Your task to perform on an android device: turn notification dots on Image 0: 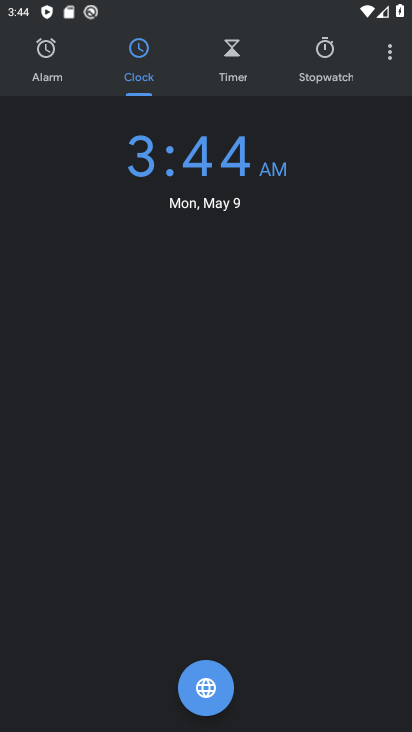
Step 0: press back button
Your task to perform on an android device: turn notification dots on Image 1: 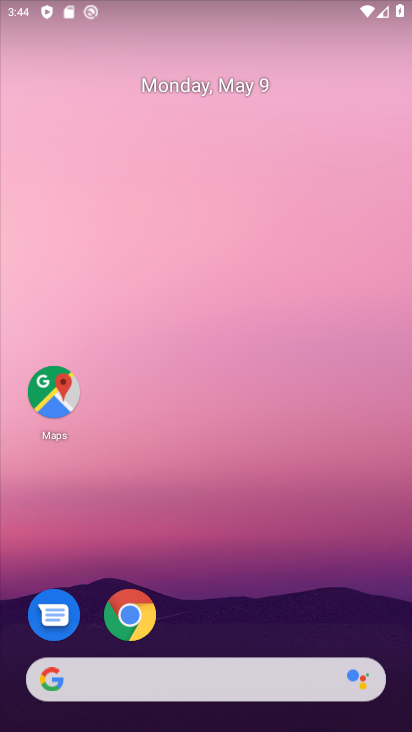
Step 1: drag from (218, 663) to (313, 206)
Your task to perform on an android device: turn notification dots on Image 2: 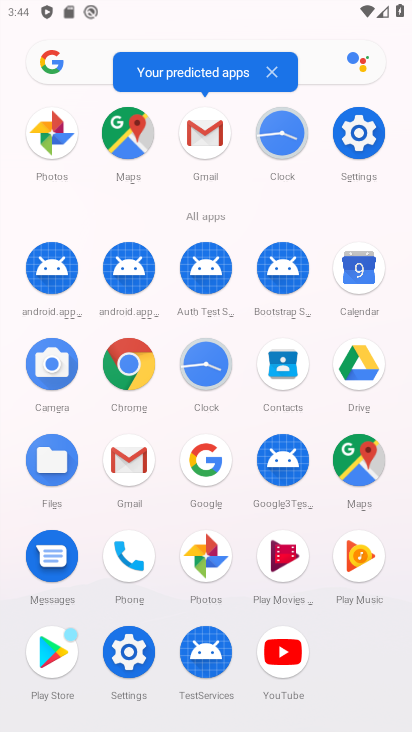
Step 2: click (142, 654)
Your task to perform on an android device: turn notification dots on Image 3: 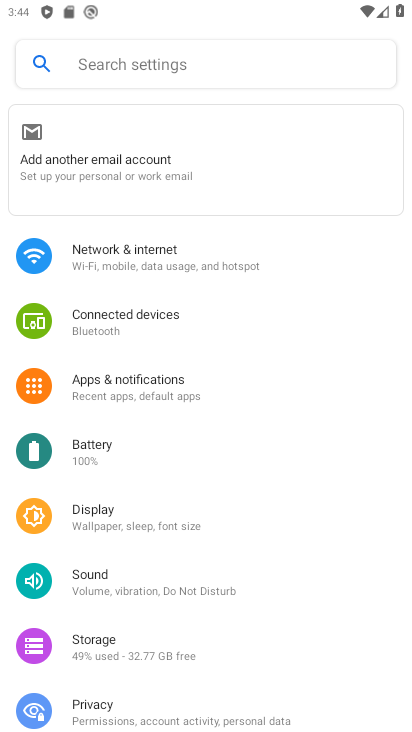
Step 3: click (142, 654)
Your task to perform on an android device: turn notification dots on Image 4: 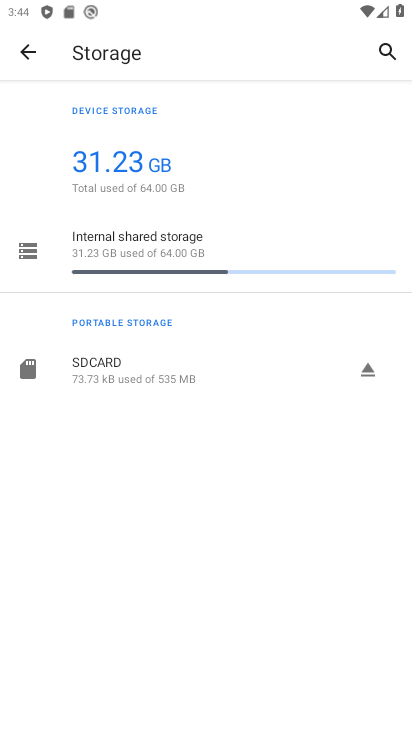
Step 4: press back button
Your task to perform on an android device: turn notification dots on Image 5: 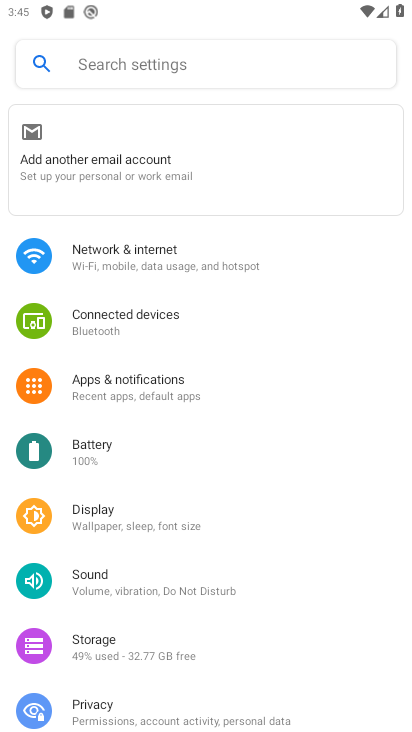
Step 5: click (194, 399)
Your task to perform on an android device: turn notification dots on Image 6: 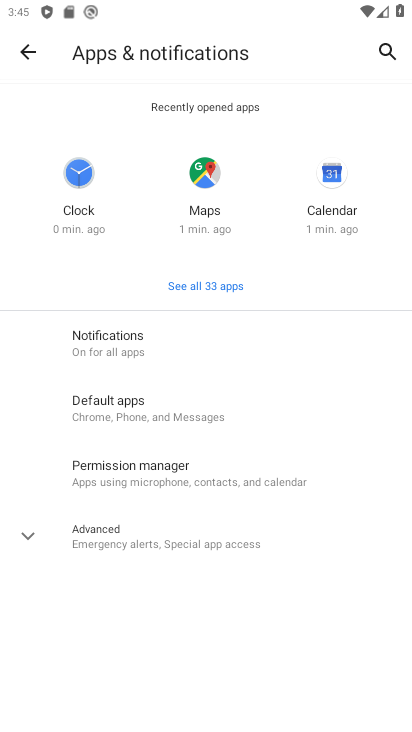
Step 6: click (189, 352)
Your task to perform on an android device: turn notification dots on Image 7: 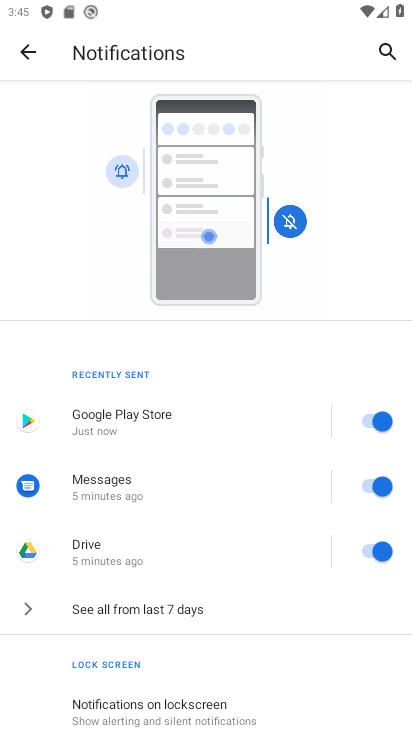
Step 7: drag from (206, 618) to (270, 394)
Your task to perform on an android device: turn notification dots on Image 8: 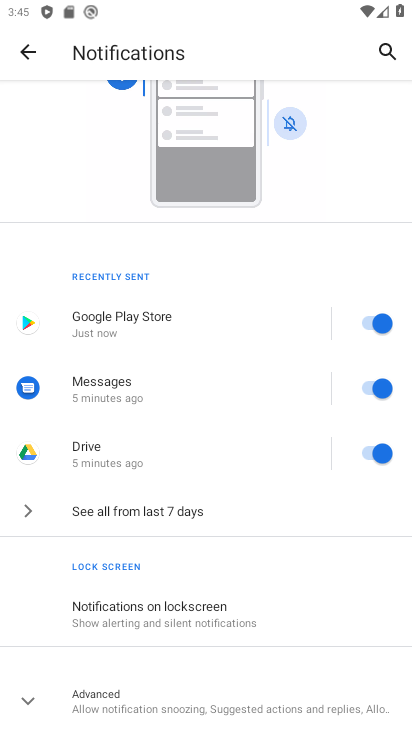
Step 8: drag from (212, 653) to (233, 548)
Your task to perform on an android device: turn notification dots on Image 9: 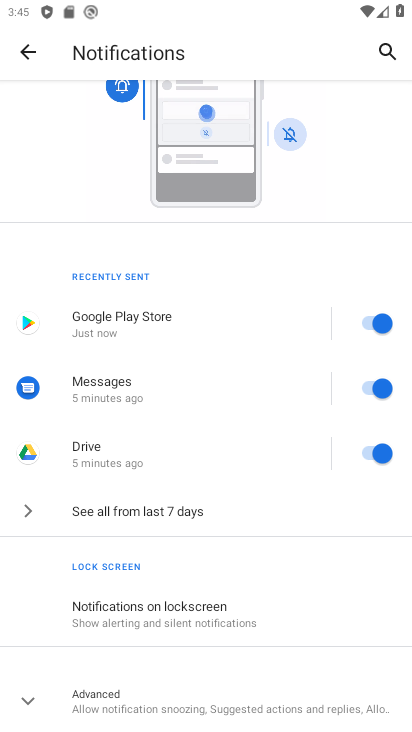
Step 9: click (184, 683)
Your task to perform on an android device: turn notification dots on Image 10: 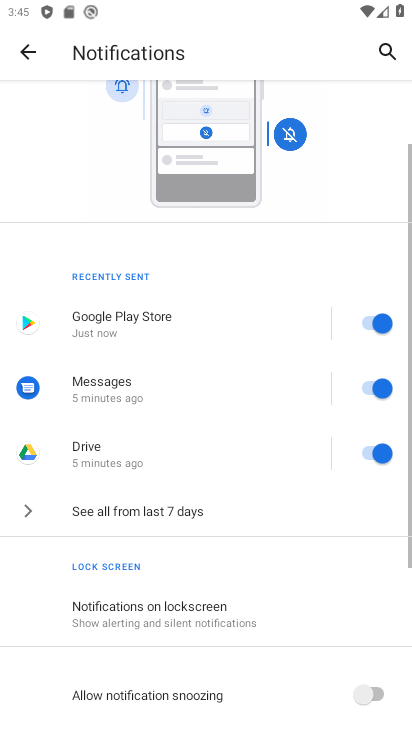
Step 10: task complete